Your task to perform on an android device: Open calendar and show me the third week of next month Image 0: 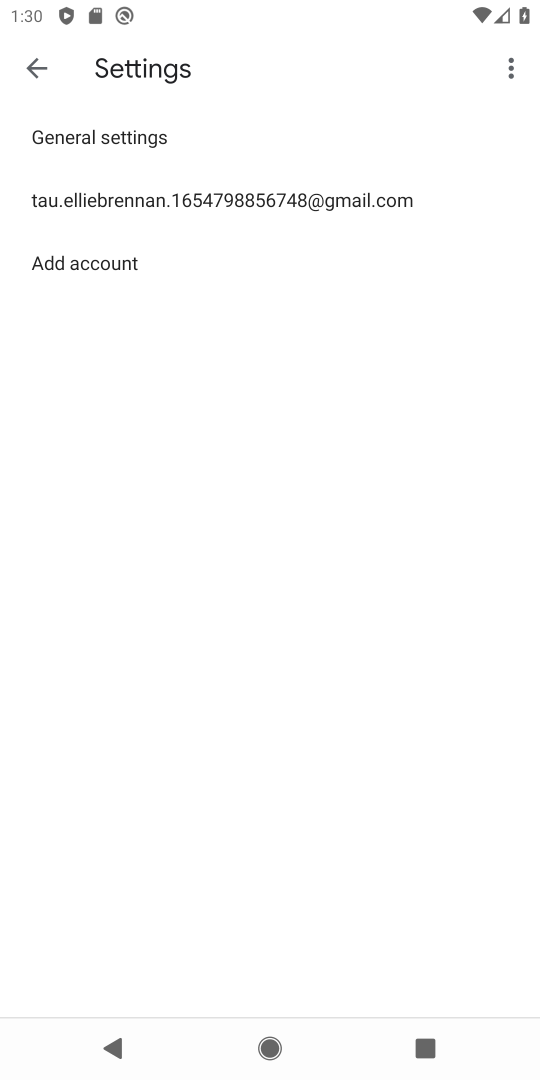
Step 0: press home button
Your task to perform on an android device: Open calendar and show me the third week of next month Image 1: 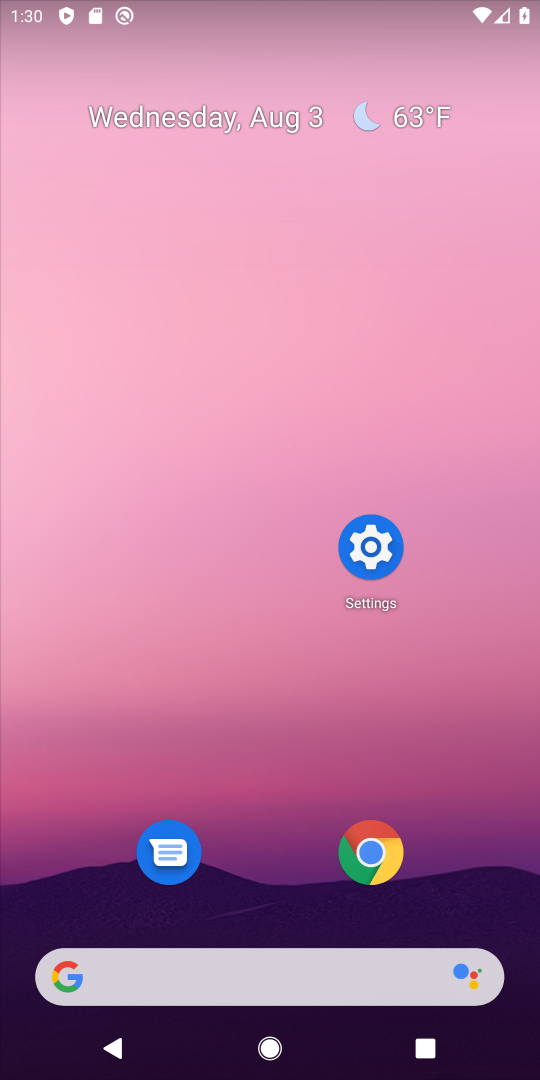
Step 1: drag from (242, 965) to (392, 339)
Your task to perform on an android device: Open calendar and show me the third week of next month Image 2: 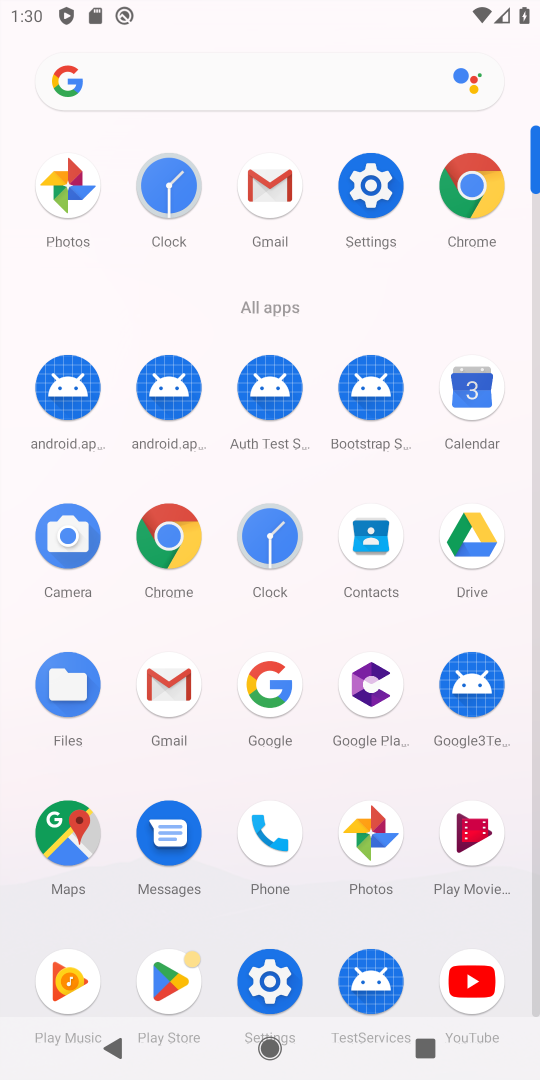
Step 2: click (481, 398)
Your task to perform on an android device: Open calendar and show me the third week of next month Image 3: 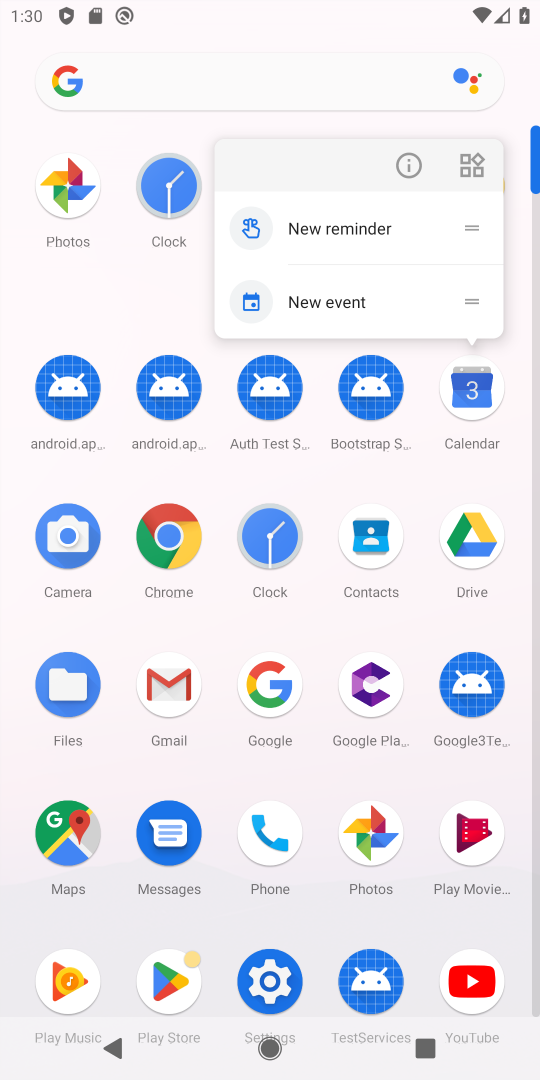
Step 3: click (481, 398)
Your task to perform on an android device: Open calendar and show me the third week of next month Image 4: 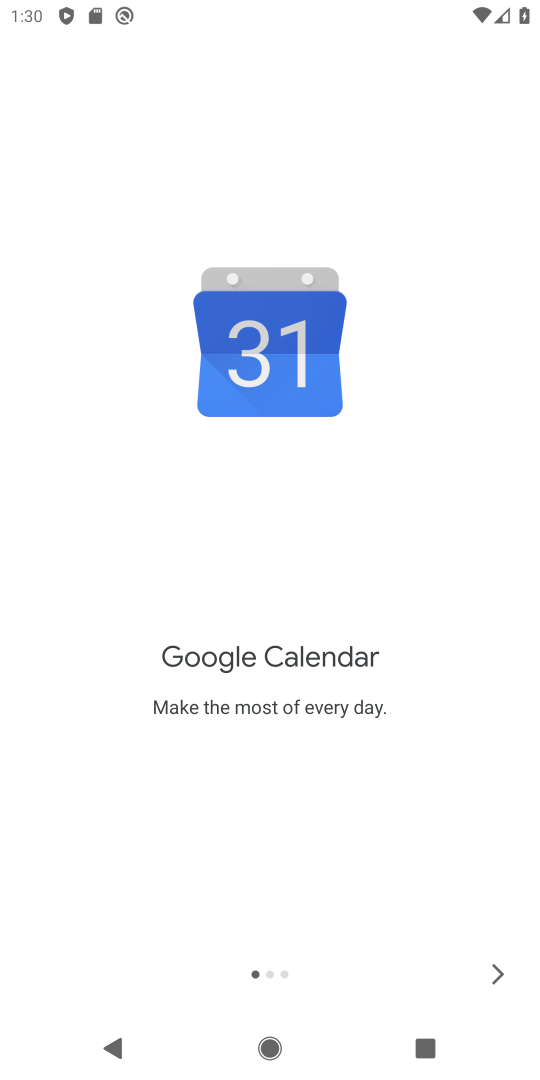
Step 4: click (490, 973)
Your task to perform on an android device: Open calendar and show me the third week of next month Image 5: 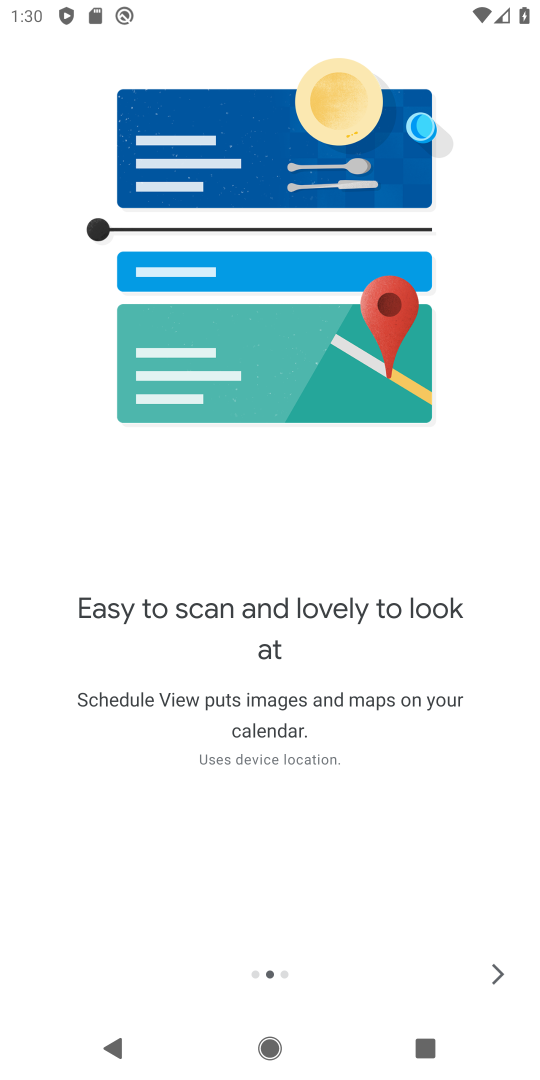
Step 5: click (490, 973)
Your task to perform on an android device: Open calendar and show me the third week of next month Image 6: 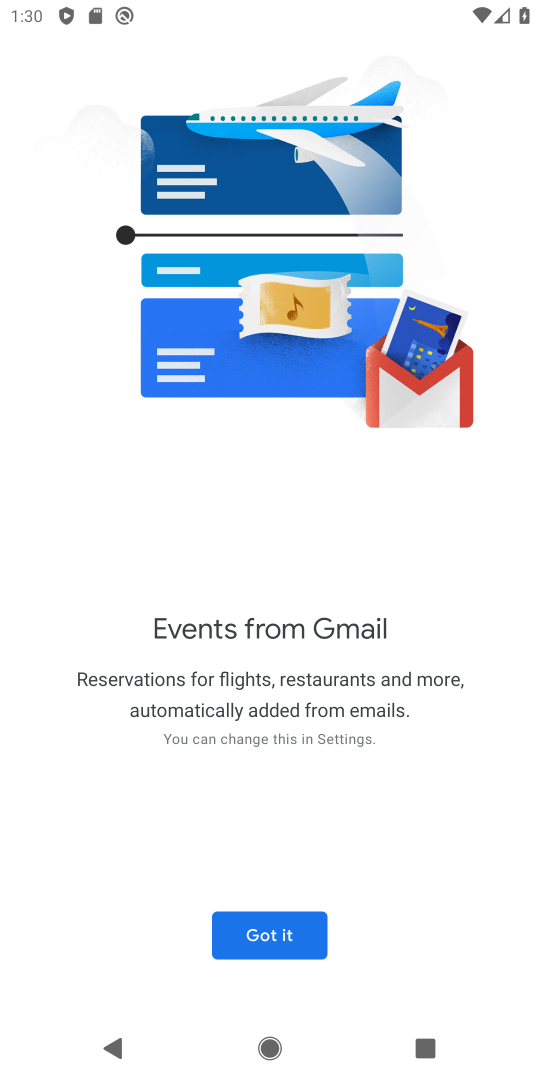
Step 6: click (266, 934)
Your task to perform on an android device: Open calendar and show me the third week of next month Image 7: 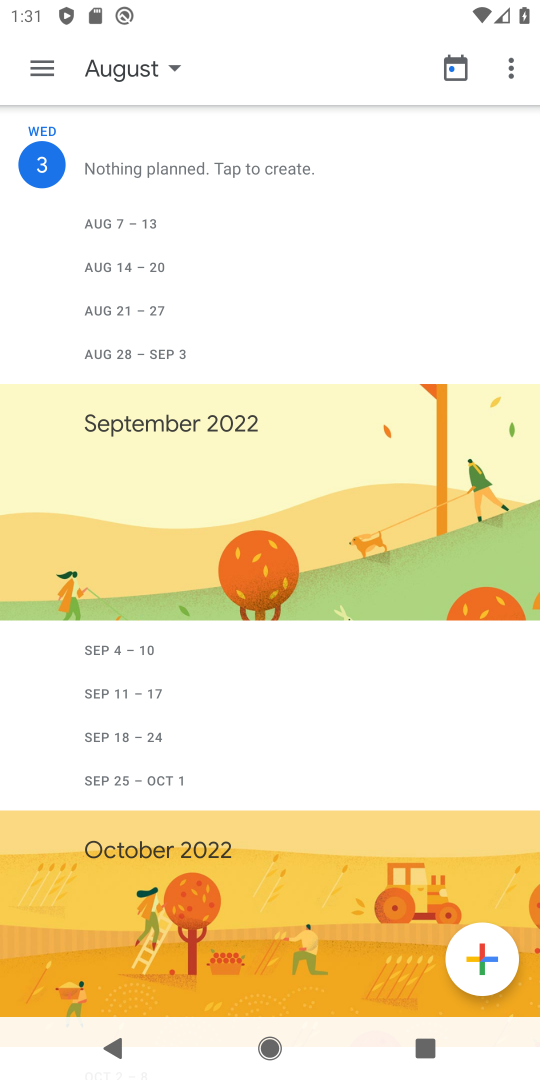
Step 7: click (96, 65)
Your task to perform on an android device: Open calendar and show me the third week of next month Image 8: 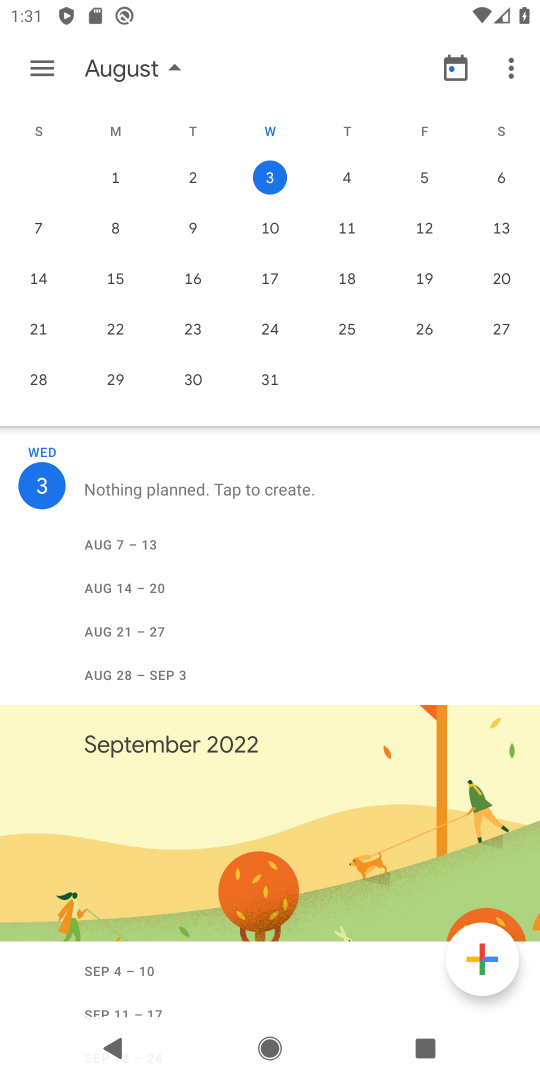
Step 8: drag from (488, 257) to (11, 259)
Your task to perform on an android device: Open calendar and show me the third week of next month Image 9: 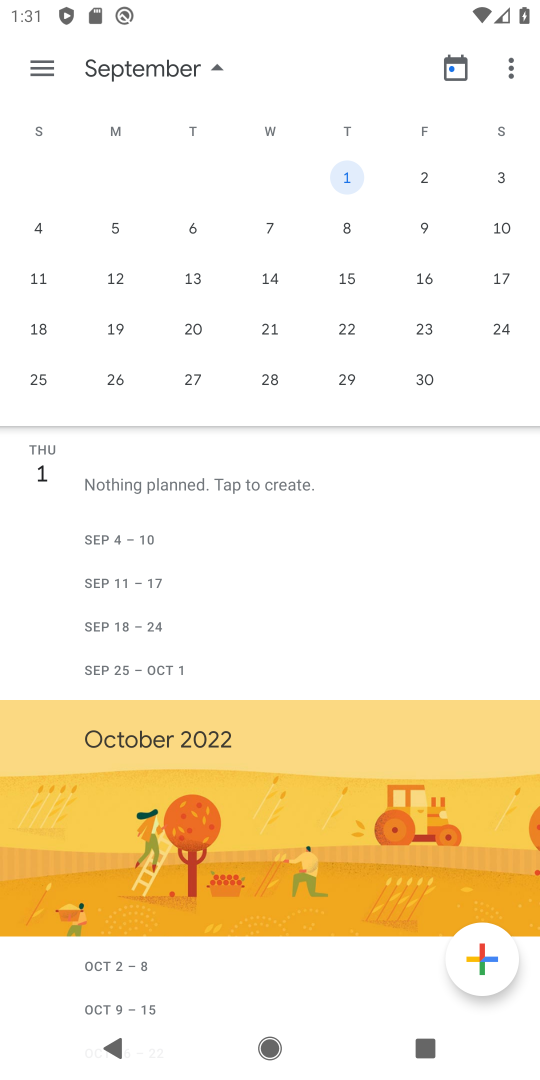
Step 9: click (41, 285)
Your task to perform on an android device: Open calendar and show me the third week of next month Image 10: 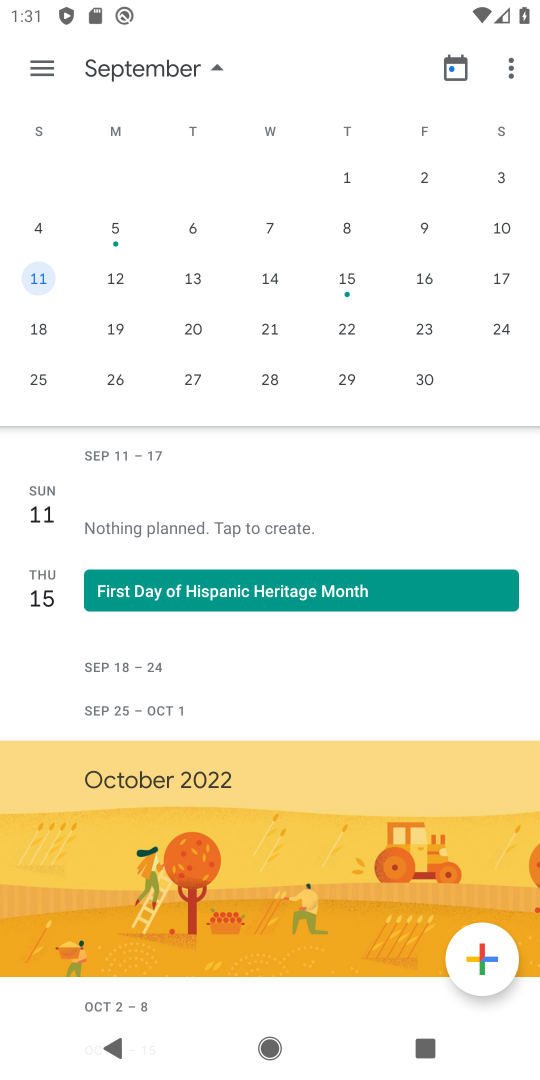
Step 10: click (45, 72)
Your task to perform on an android device: Open calendar and show me the third week of next month Image 11: 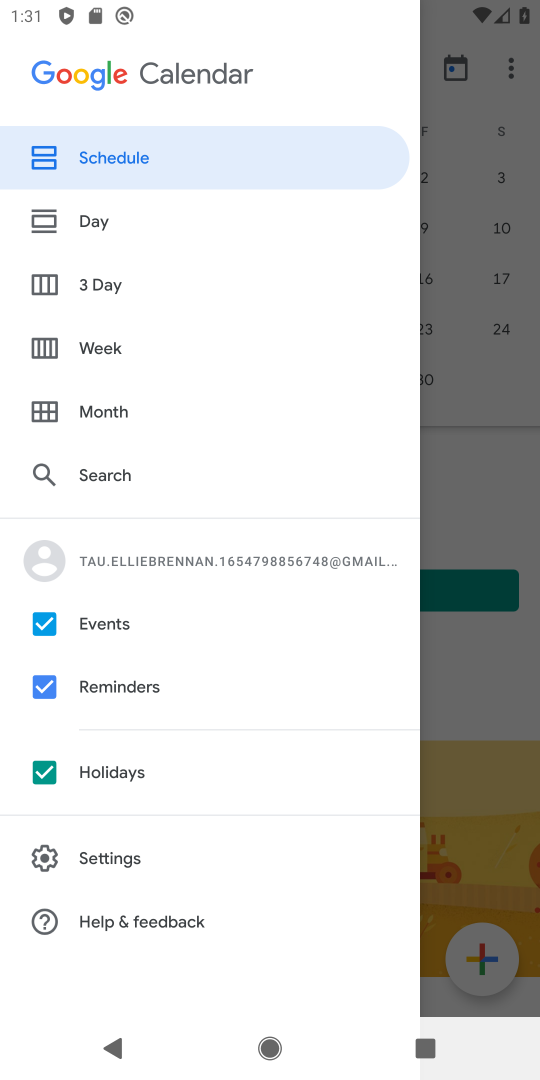
Step 11: click (93, 347)
Your task to perform on an android device: Open calendar and show me the third week of next month Image 12: 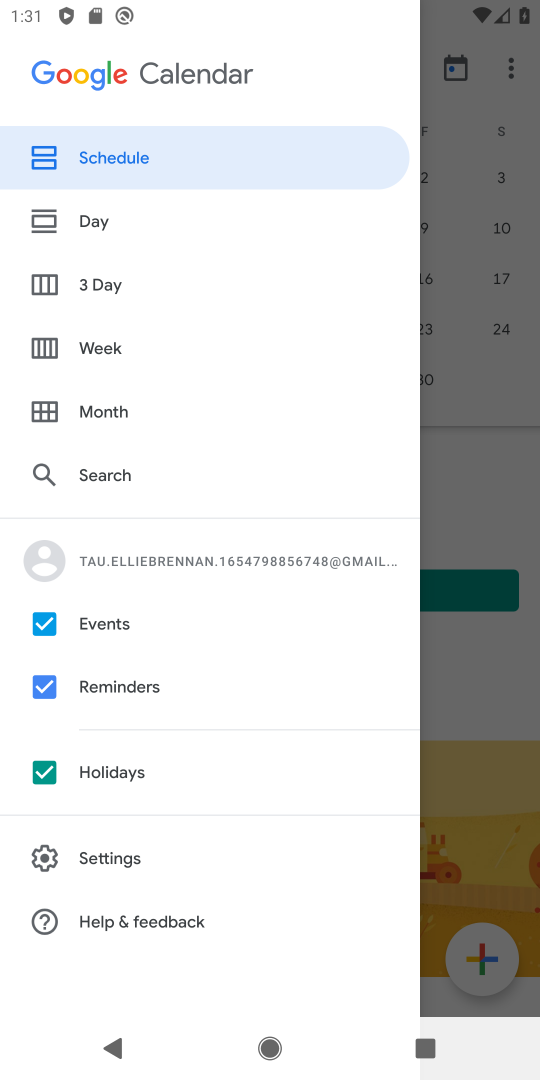
Step 12: click (105, 352)
Your task to perform on an android device: Open calendar and show me the third week of next month Image 13: 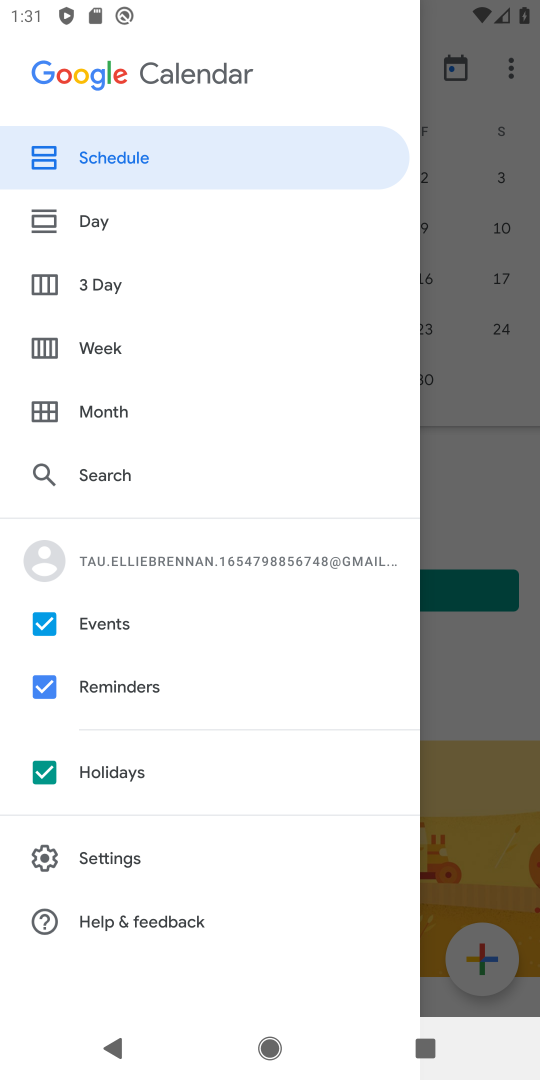
Step 13: click (137, 351)
Your task to perform on an android device: Open calendar and show me the third week of next month Image 14: 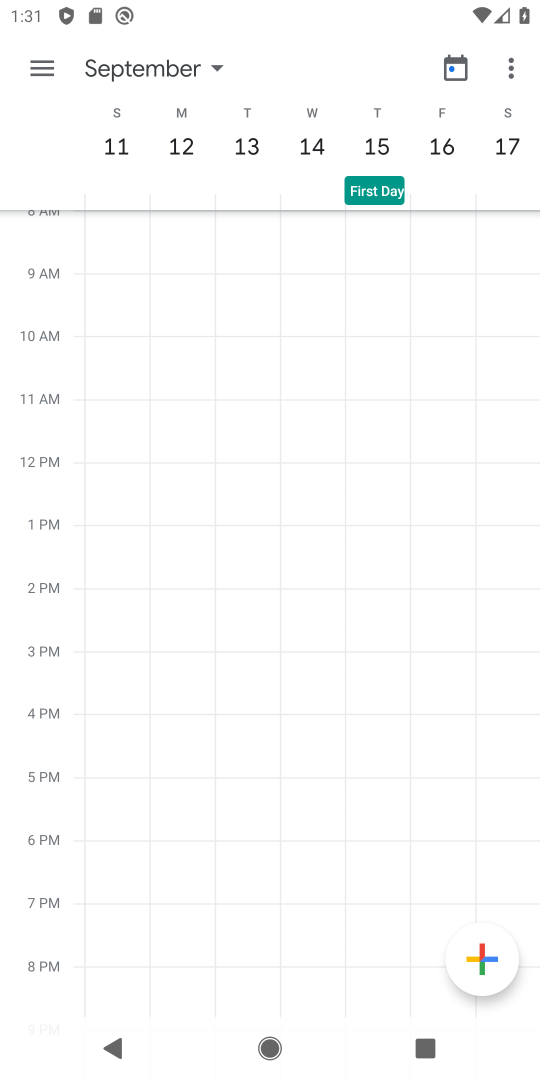
Step 14: task complete